Your task to perform on an android device: move an email to a new category in the gmail app Image 0: 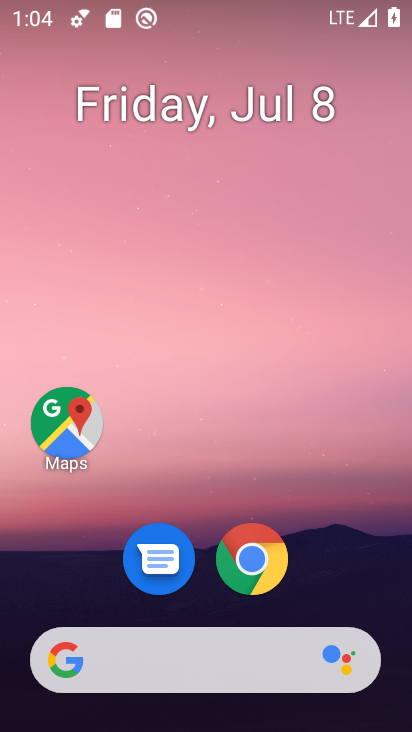
Step 0: drag from (178, 616) to (136, 5)
Your task to perform on an android device: move an email to a new category in the gmail app Image 1: 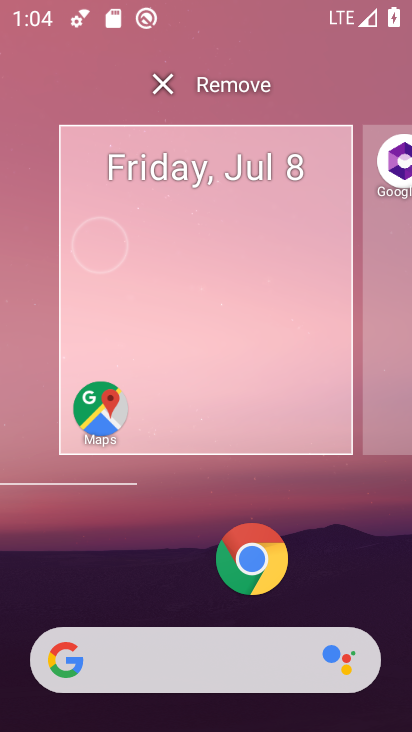
Step 1: click (212, 449)
Your task to perform on an android device: move an email to a new category in the gmail app Image 2: 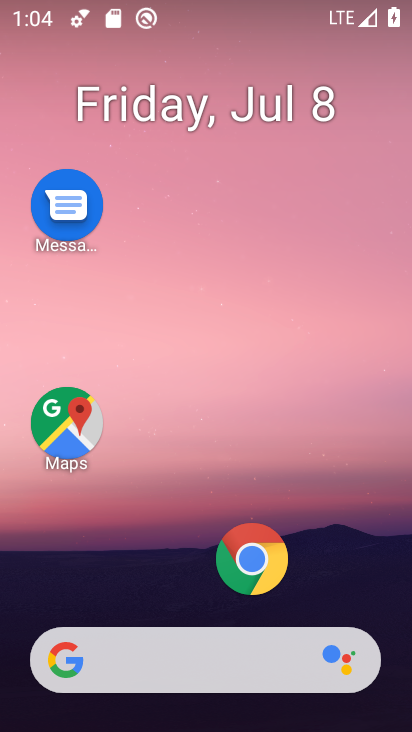
Step 2: drag from (199, 624) to (112, 22)
Your task to perform on an android device: move an email to a new category in the gmail app Image 3: 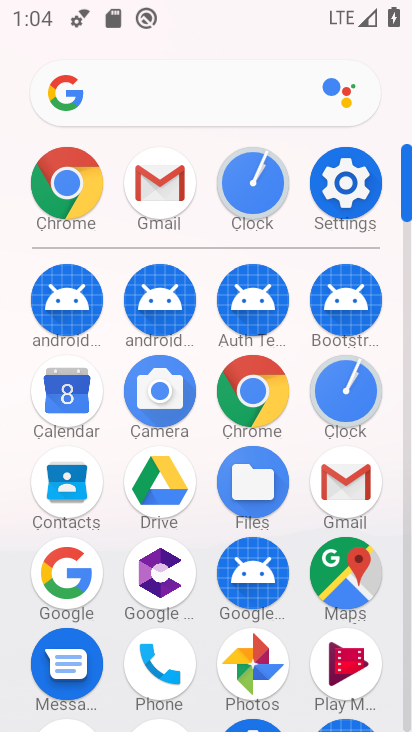
Step 3: click (171, 201)
Your task to perform on an android device: move an email to a new category in the gmail app Image 4: 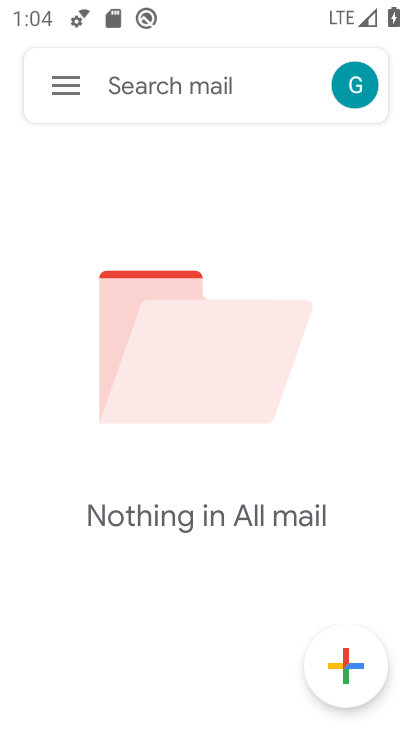
Step 4: task complete